Your task to perform on an android device: Do I have any events this weekend? Image 0: 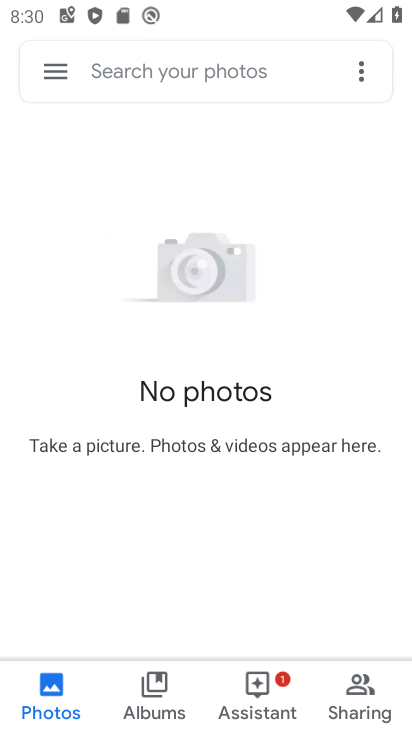
Step 0: press home button
Your task to perform on an android device: Do I have any events this weekend? Image 1: 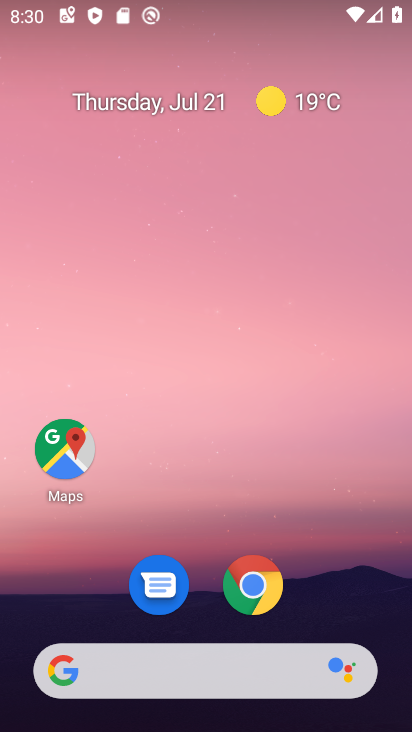
Step 1: drag from (332, 578) to (315, 40)
Your task to perform on an android device: Do I have any events this weekend? Image 2: 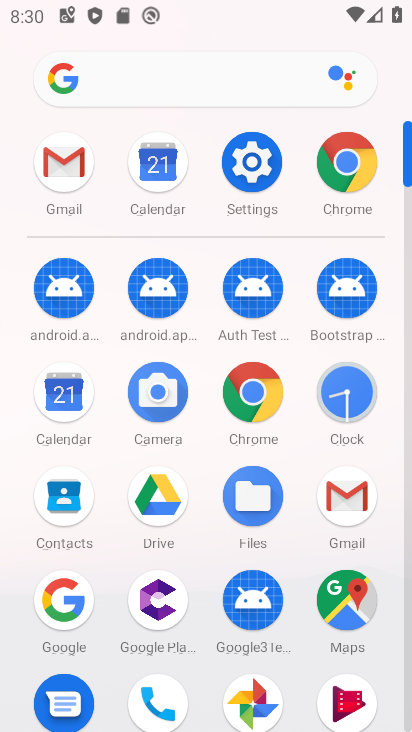
Step 2: click (164, 164)
Your task to perform on an android device: Do I have any events this weekend? Image 3: 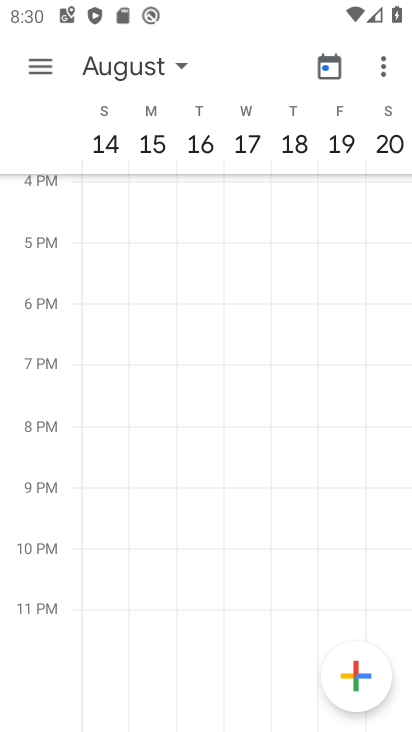
Step 3: drag from (115, 346) to (149, 331)
Your task to perform on an android device: Do I have any events this weekend? Image 4: 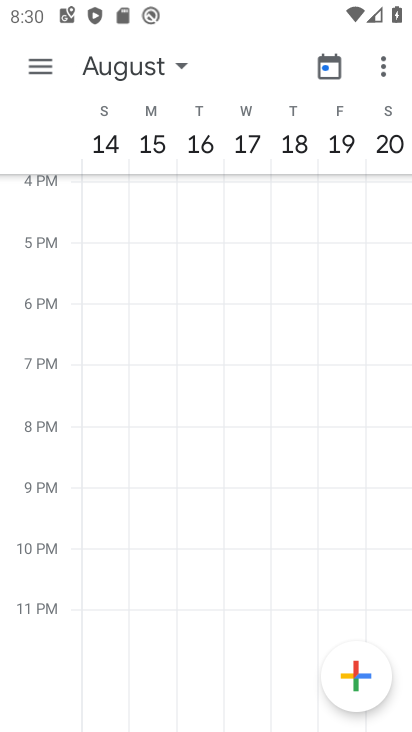
Step 4: drag from (238, 333) to (402, 351)
Your task to perform on an android device: Do I have any events this weekend? Image 5: 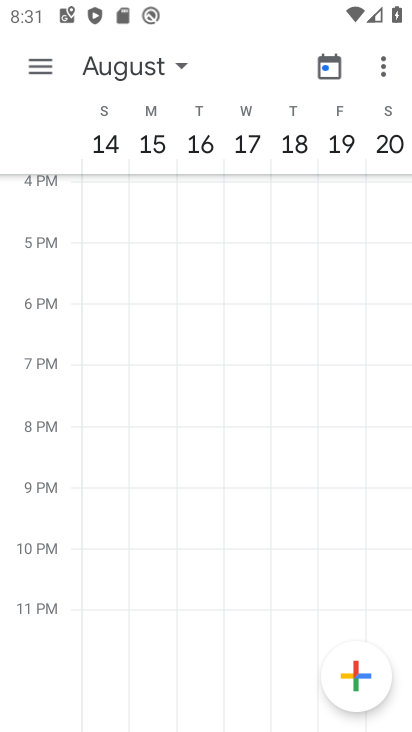
Step 5: drag from (103, 337) to (404, 357)
Your task to perform on an android device: Do I have any events this weekend? Image 6: 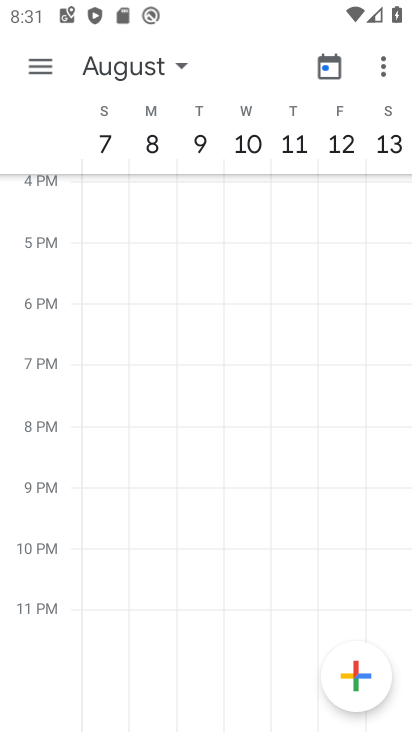
Step 6: drag from (103, 327) to (406, 365)
Your task to perform on an android device: Do I have any events this weekend? Image 7: 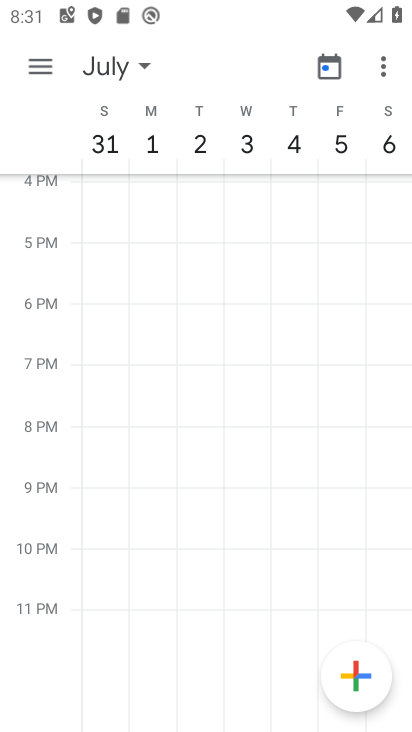
Step 7: drag from (103, 323) to (411, 318)
Your task to perform on an android device: Do I have any events this weekend? Image 8: 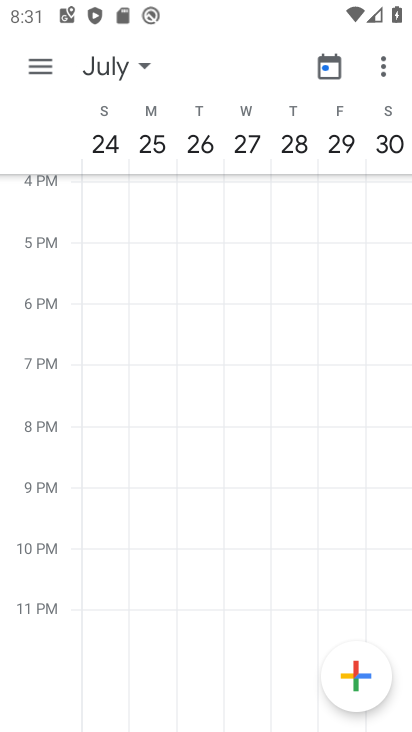
Step 8: drag from (97, 336) to (409, 303)
Your task to perform on an android device: Do I have any events this weekend? Image 9: 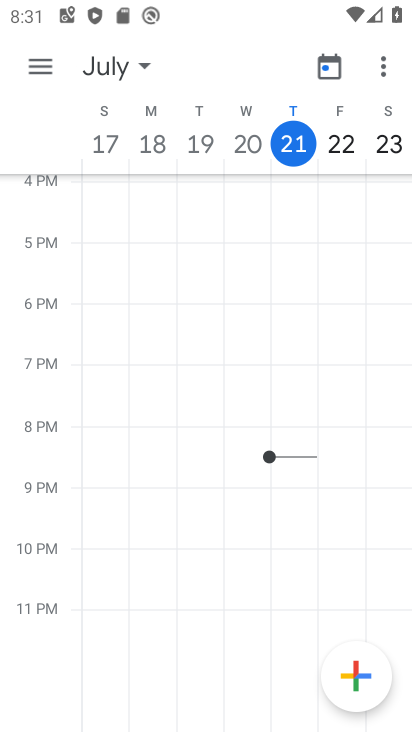
Step 9: click (384, 140)
Your task to perform on an android device: Do I have any events this weekend? Image 10: 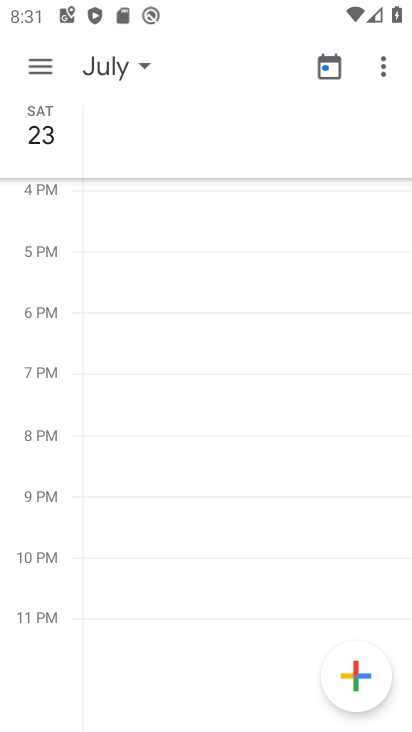
Step 10: task complete